Your task to perform on an android device: toggle airplane mode Image 0: 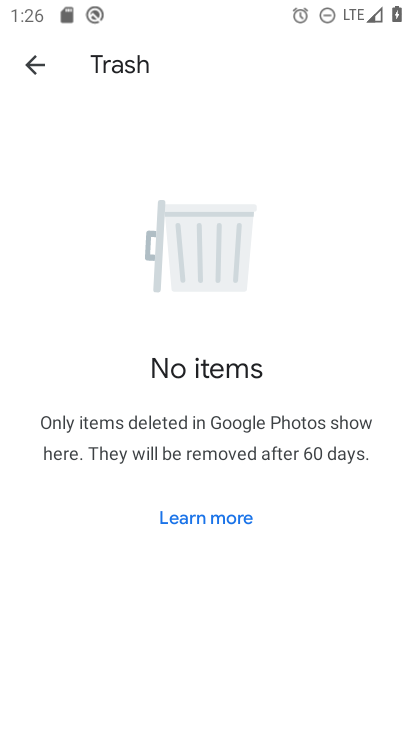
Step 0: press home button
Your task to perform on an android device: toggle airplane mode Image 1: 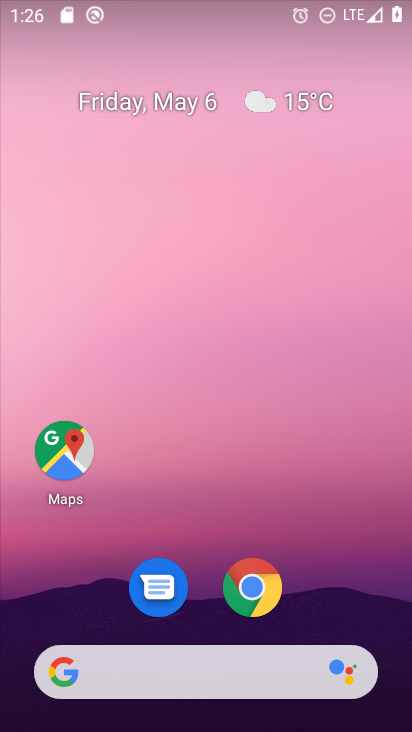
Step 1: drag from (311, 613) to (218, 19)
Your task to perform on an android device: toggle airplane mode Image 2: 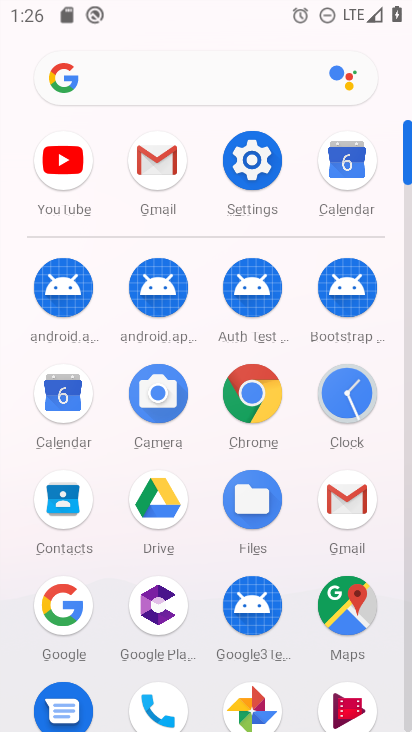
Step 2: click (253, 154)
Your task to perform on an android device: toggle airplane mode Image 3: 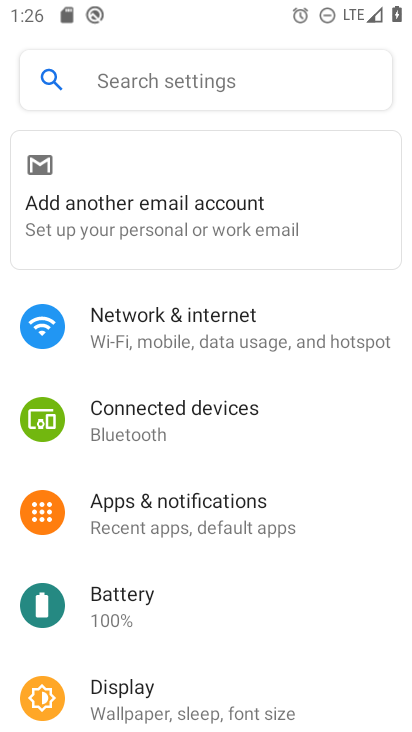
Step 3: click (227, 305)
Your task to perform on an android device: toggle airplane mode Image 4: 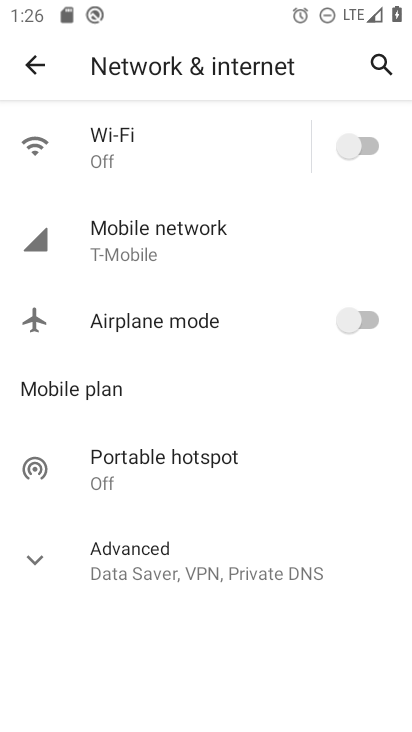
Step 4: click (363, 315)
Your task to perform on an android device: toggle airplane mode Image 5: 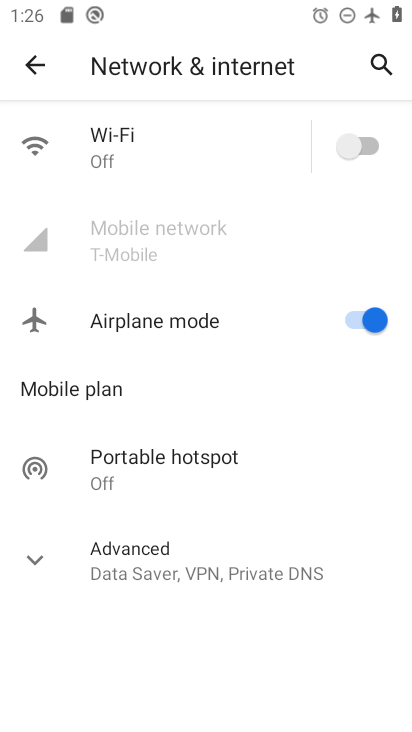
Step 5: task complete